Your task to perform on an android device: What is the speed of sound? Image 0: 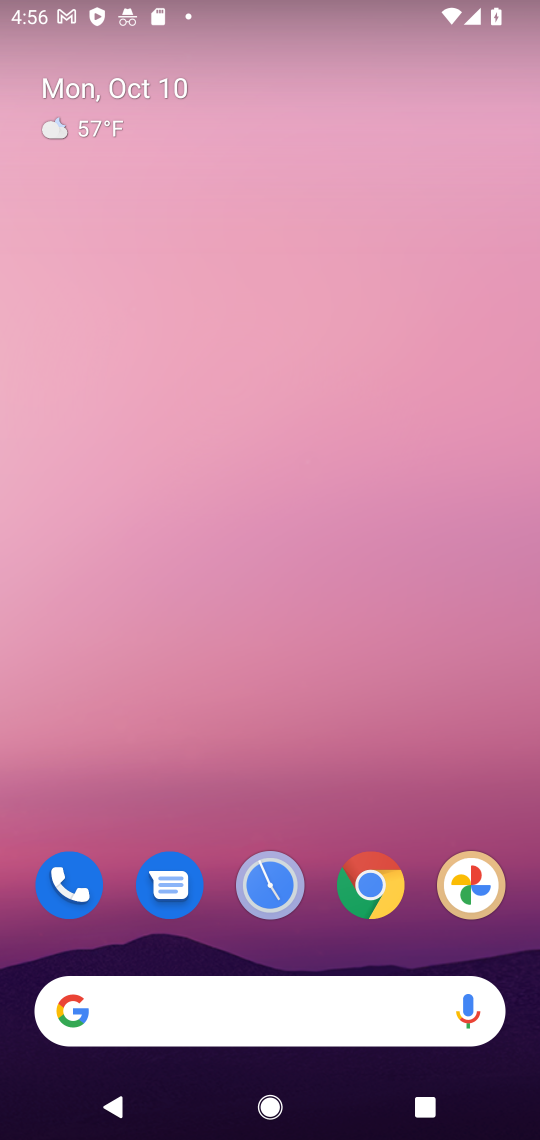
Step 0: click (281, 994)
Your task to perform on an android device: What is the speed of sound? Image 1: 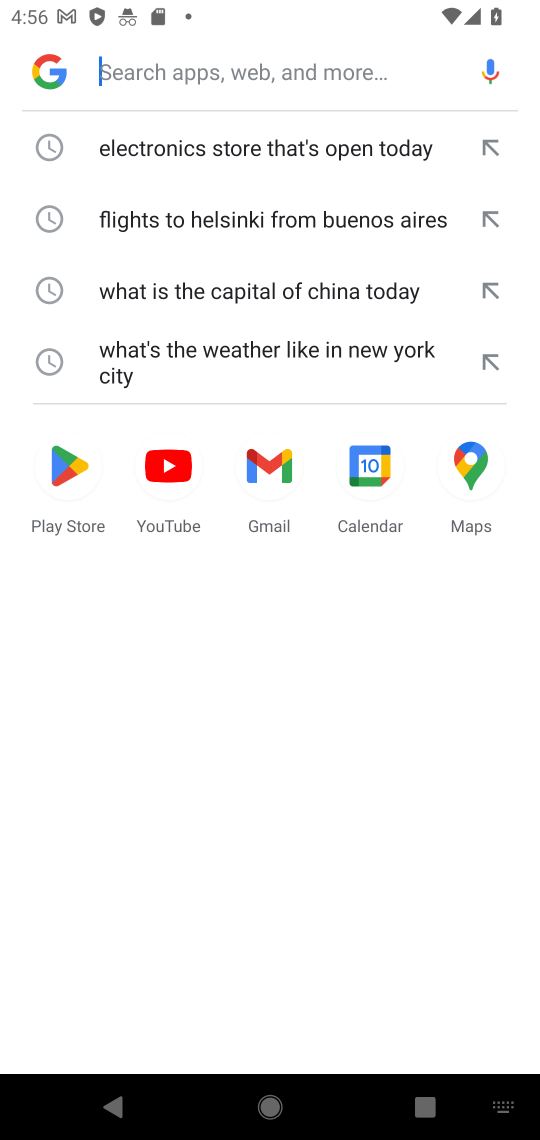
Step 1: type "speed of sound?"
Your task to perform on an android device: What is the speed of sound? Image 2: 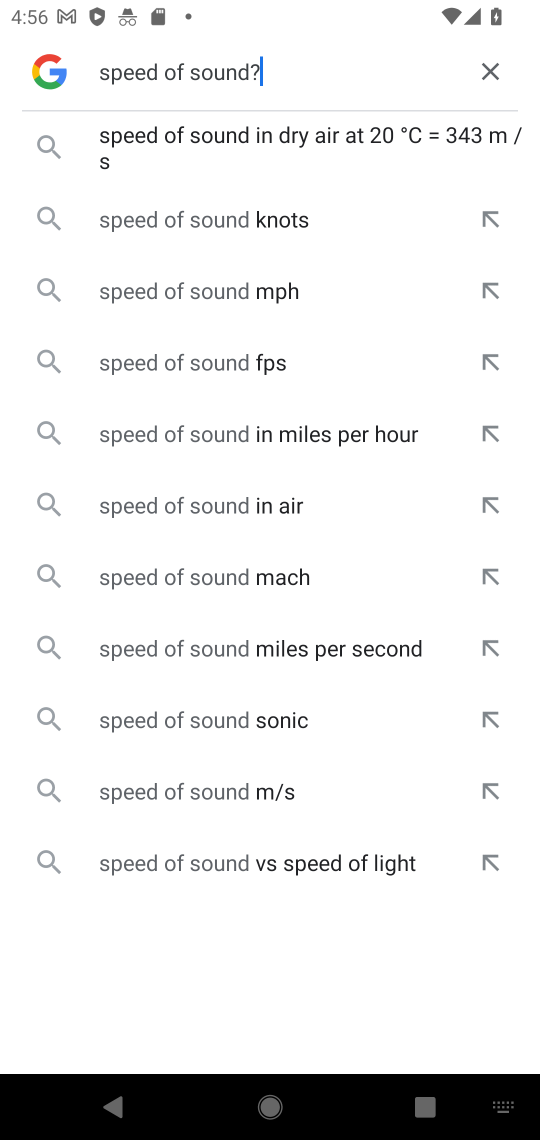
Step 2: click (272, 141)
Your task to perform on an android device: What is the speed of sound? Image 3: 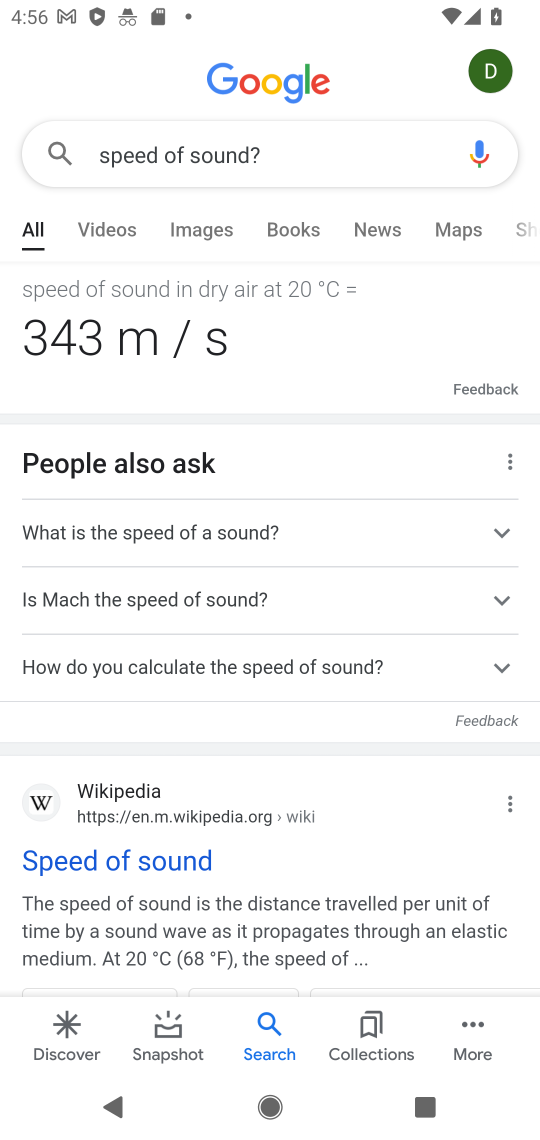
Step 3: task complete